Your task to perform on an android device: Open Youtube and go to "Your channel" Image 0: 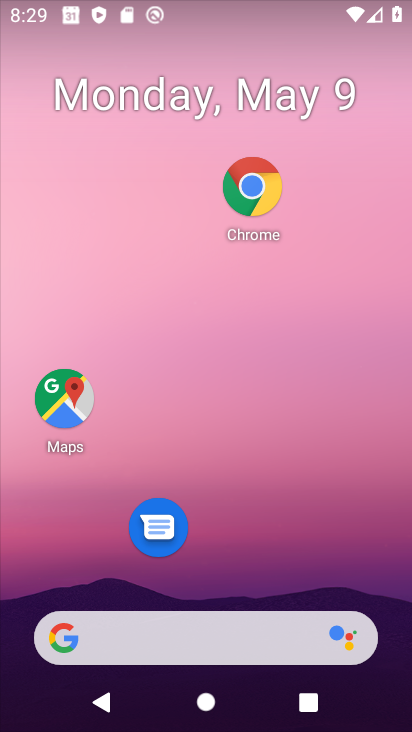
Step 0: drag from (219, 591) to (223, 25)
Your task to perform on an android device: Open Youtube and go to "Your channel" Image 1: 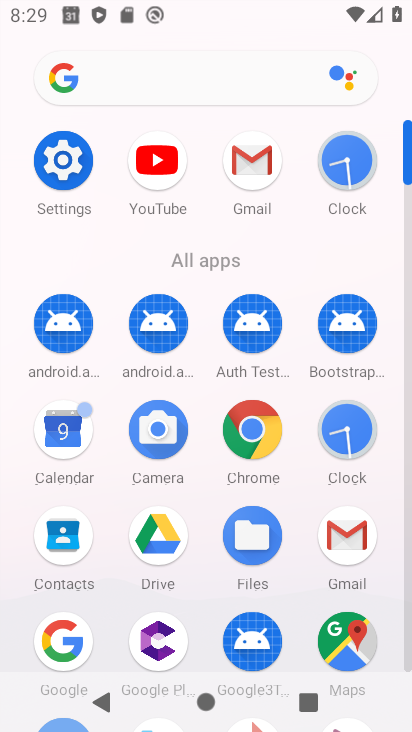
Step 1: click (158, 158)
Your task to perform on an android device: Open Youtube and go to "Your channel" Image 2: 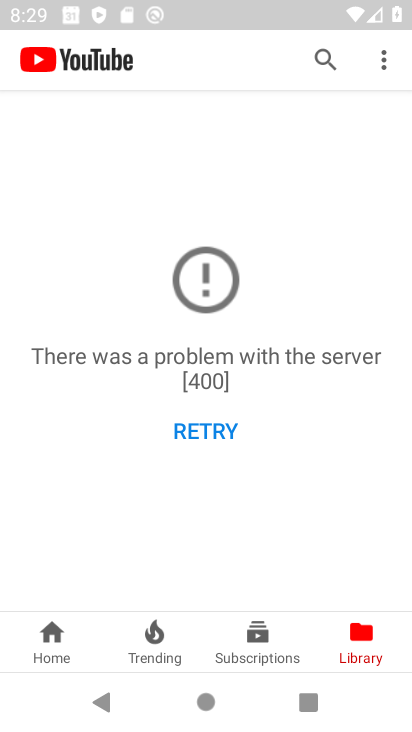
Step 2: click (382, 55)
Your task to perform on an android device: Open Youtube and go to "Your channel" Image 3: 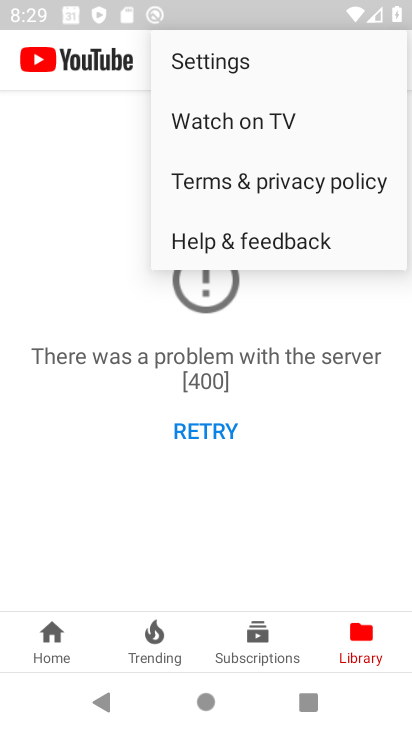
Step 3: click (249, 66)
Your task to perform on an android device: Open Youtube and go to "Your channel" Image 4: 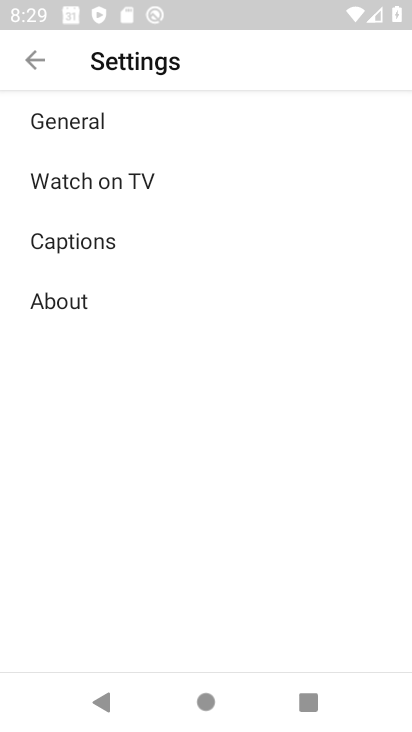
Step 4: click (109, 114)
Your task to perform on an android device: Open Youtube and go to "Your channel" Image 5: 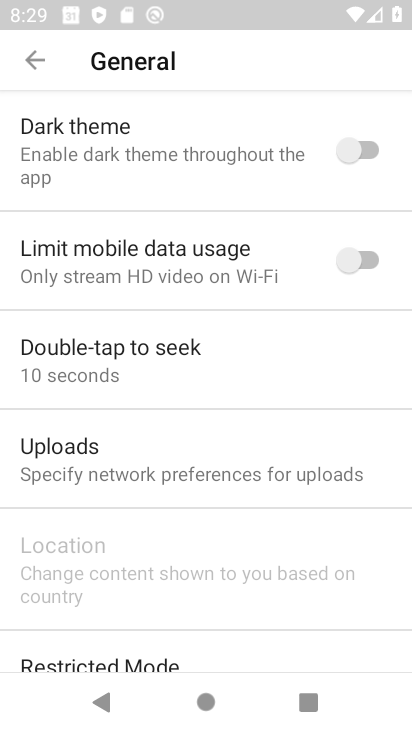
Step 5: task complete